Your task to perform on an android device: turn on airplane mode Image 0: 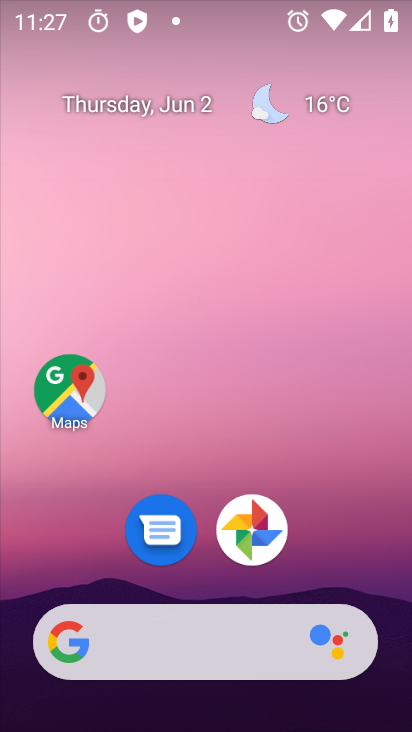
Step 0: drag from (220, 689) to (104, 148)
Your task to perform on an android device: turn on airplane mode Image 1: 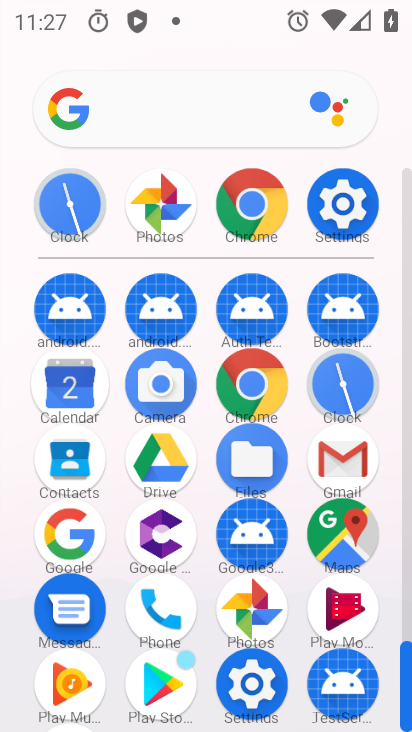
Step 1: click (343, 202)
Your task to perform on an android device: turn on airplane mode Image 2: 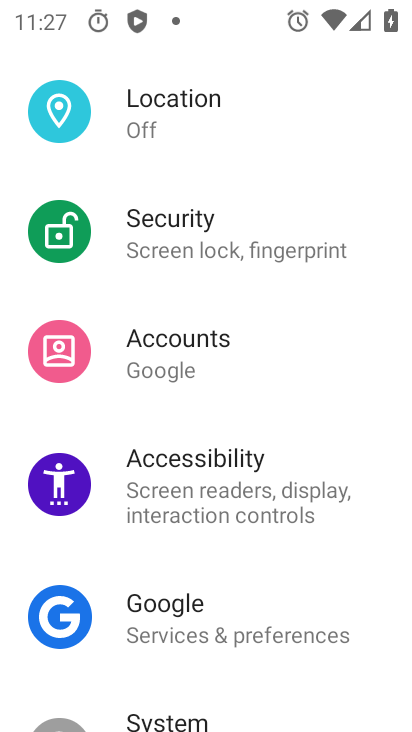
Step 2: drag from (192, 228) to (261, 629)
Your task to perform on an android device: turn on airplane mode Image 3: 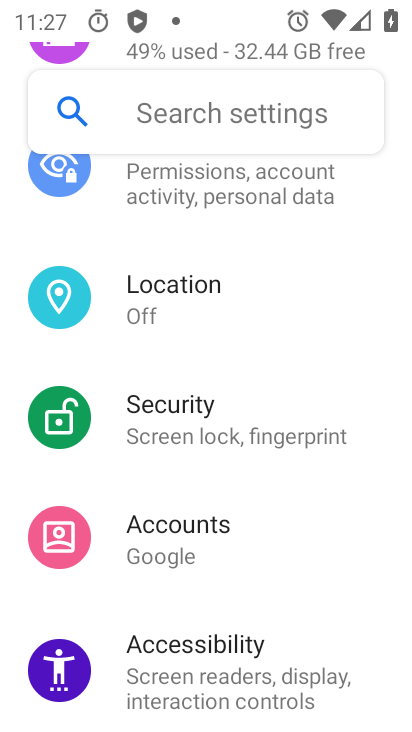
Step 3: drag from (266, 215) to (316, 603)
Your task to perform on an android device: turn on airplane mode Image 4: 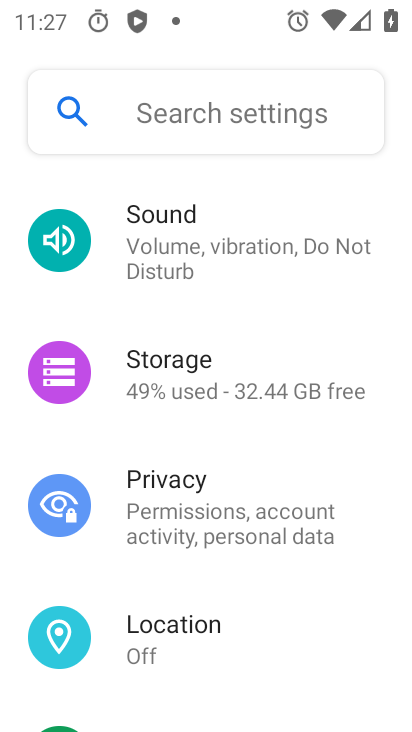
Step 4: drag from (284, 178) to (276, 640)
Your task to perform on an android device: turn on airplane mode Image 5: 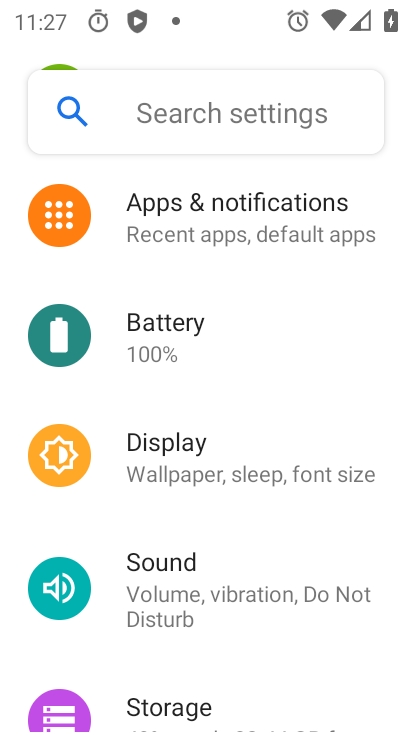
Step 5: drag from (251, 181) to (251, 693)
Your task to perform on an android device: turn on airplane mode Image 6: 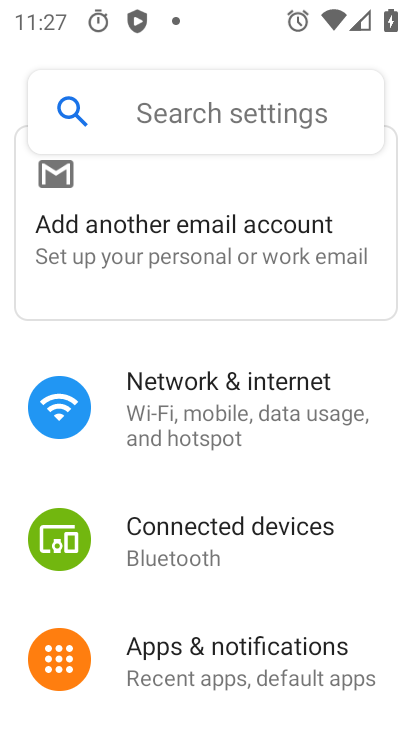
Step 6: drag from (218, 246) to (236, 576)
Your task to perform on an android device: turn on airplane mode Image 7: 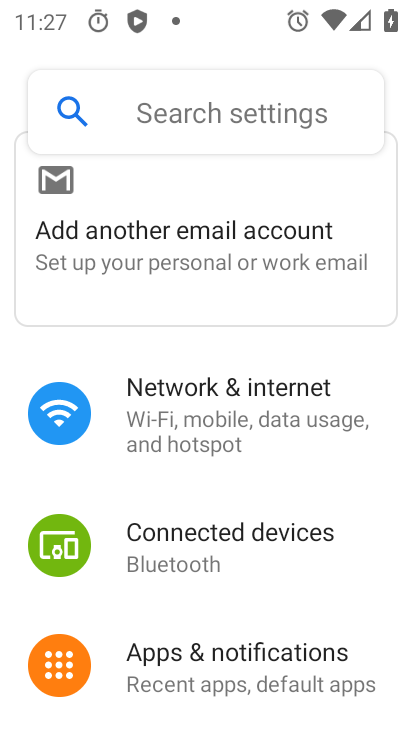
Step 7: drag from (219, 264) to (230, 567)
Your task to perform on an android device: turn on airplane mode Image 8: 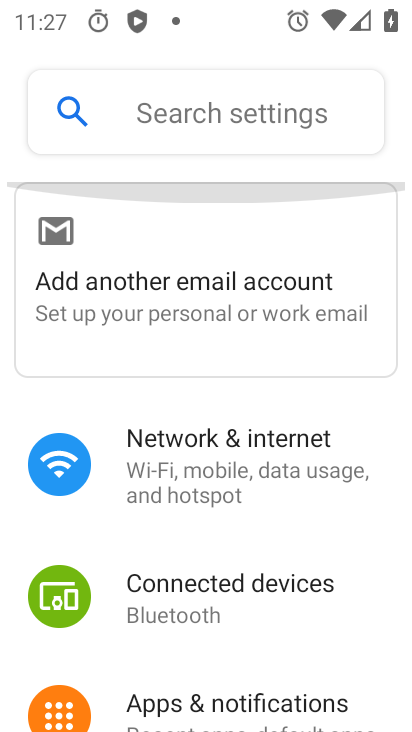
Step 8: drag from (204, 260) to (268, 701)
Your task to perform on an android device: turn on airplane mode Image 9: 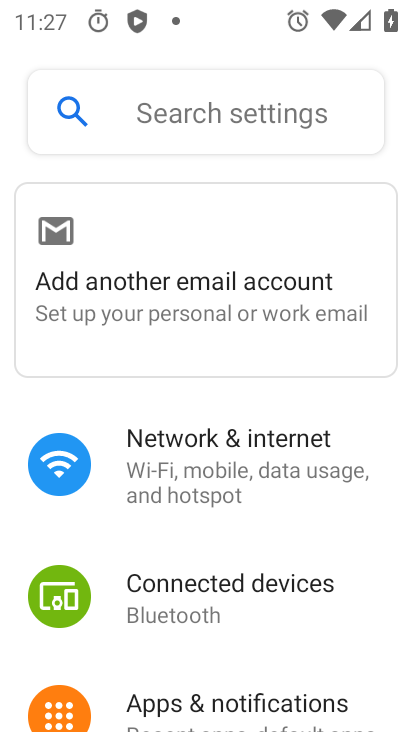
Step 9: click (204, 453)
Your task to perform on an android device: turn on airplane mode Image 10: 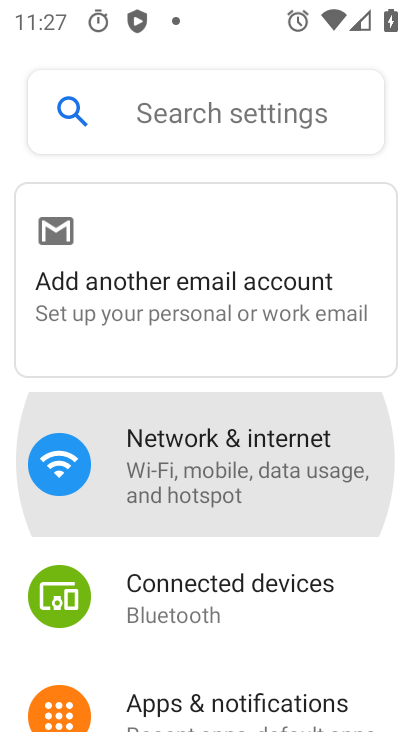
Step 10: click (204, 453)
Your task to perform on an android device: turn on airplane mode Image 11: 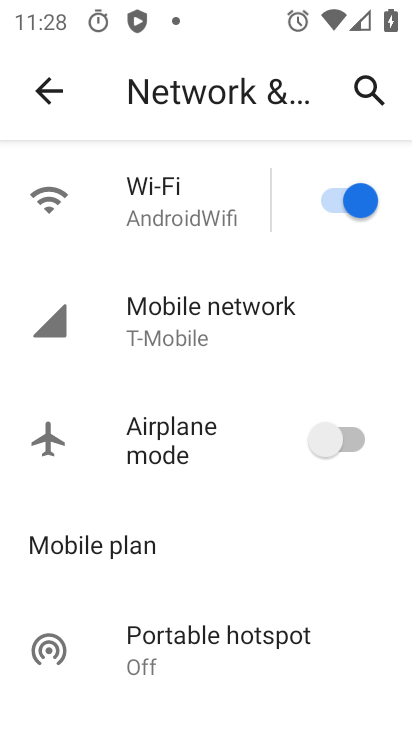
Step 11: click (326, 435)
Your task to perform on an android device: turn on airplane mode Image 12: 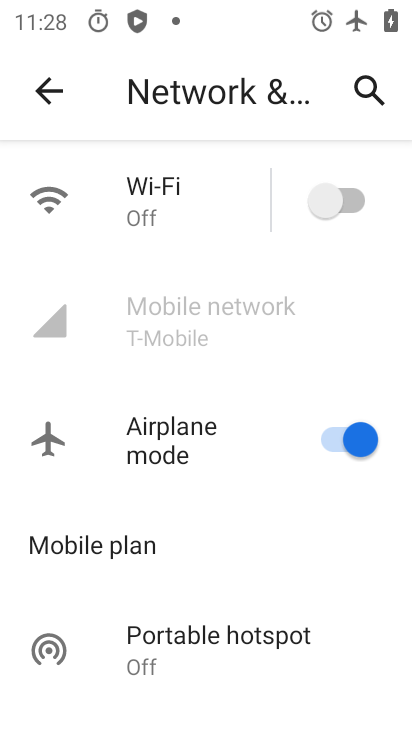
Step 12: task complete